Your task to perform on an android device: Check the weather Image 0: 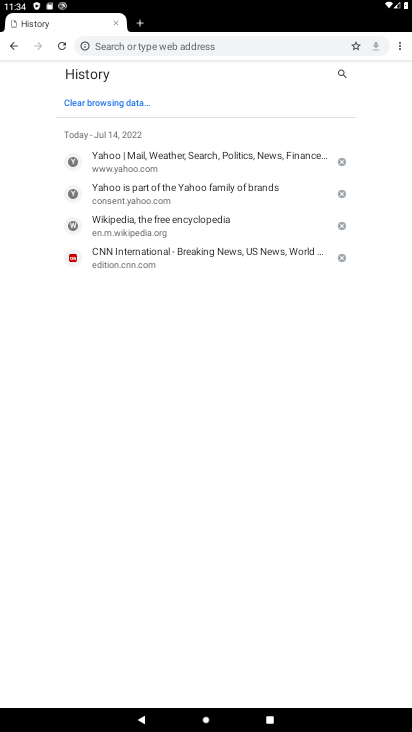
Step 0: press home button
Your task to perform on an android device: Check the weather Image 1: 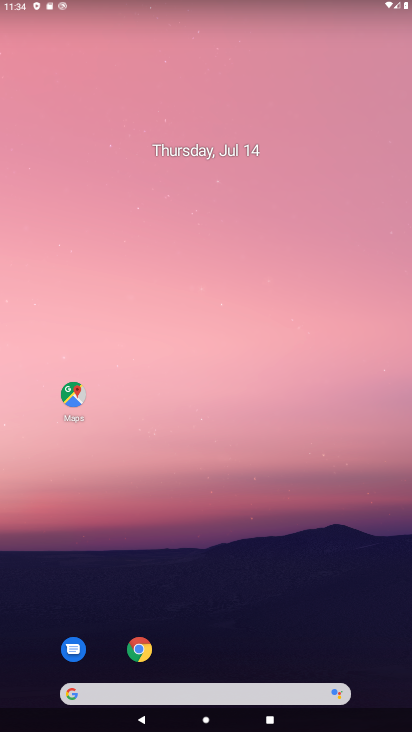
Step 1: drag from (190, 664) to (189, 76)
Your task to perform on an android device: Check the weather Image 2: 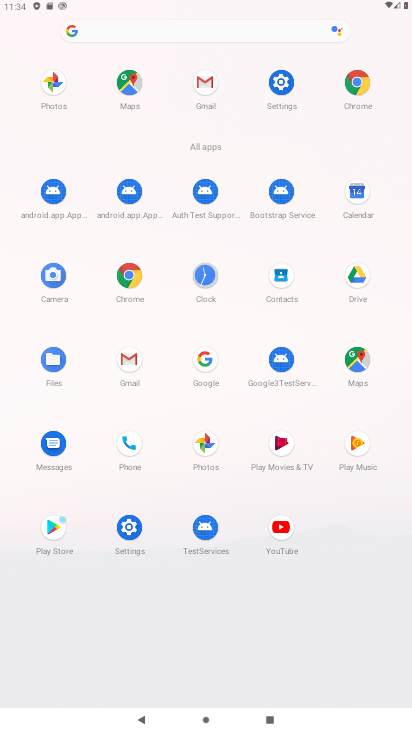
Step 2: click (202, 351)
Your task to perform on an android device: Check the weather Image 3: 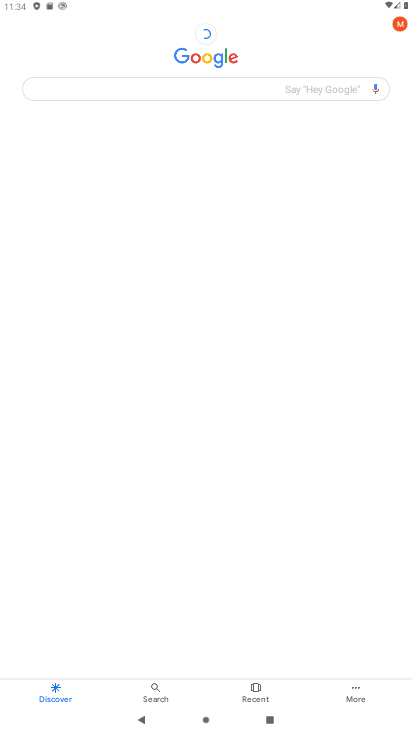
Step 3: click (209, 92)
Your task to perform on an android device: Check the weather Image 4: 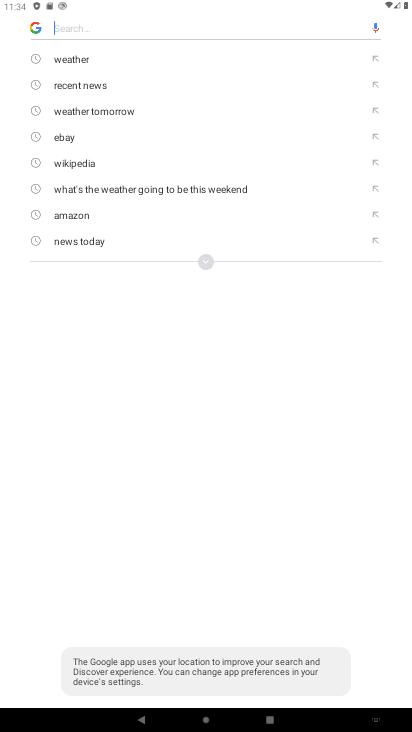
Step 4: click (93, 65)
Your task to perform on an android device: Check the weather Image 5: 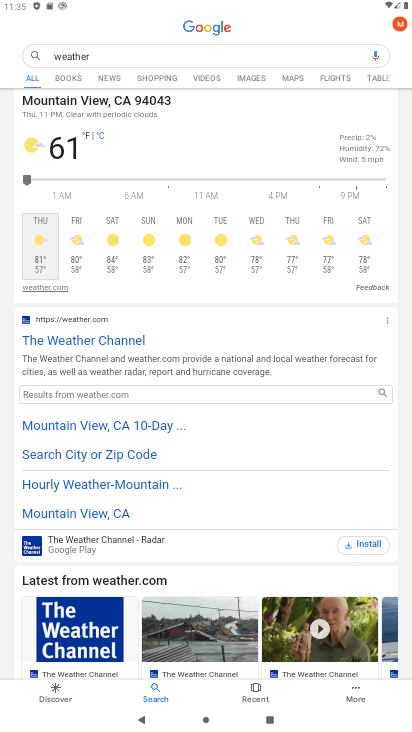
Step 5: task complete